Your task to perform on an android device: turn on improve location accuracy Image 0: 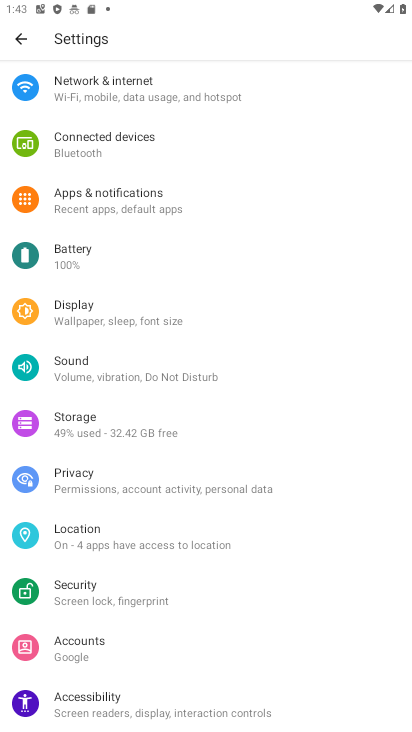
Step 0: click (145, 548)
Your task to perform on an android device: turn on improve location accuracy Image 1: 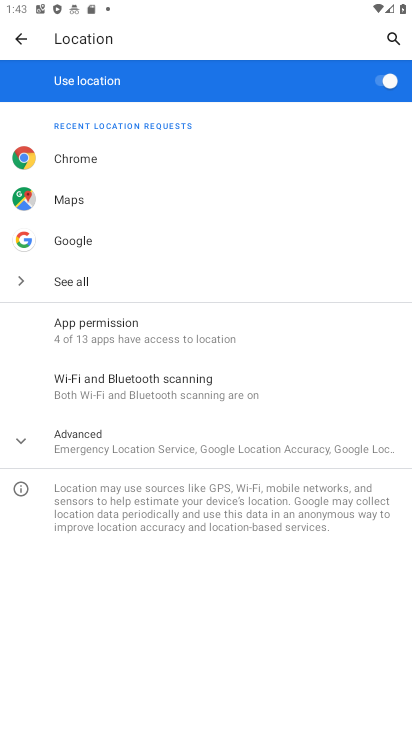
Step 1: click (212, 428)
Your task to perform on an android device: turn on improve location accuracy Image 2: 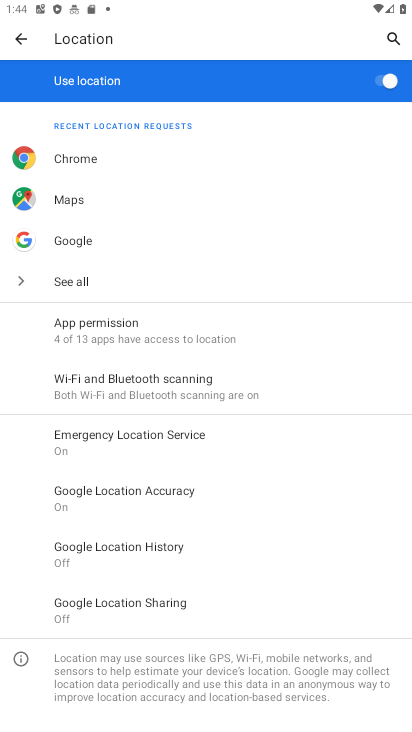
Step 2: task complete